Your task to perform on an android device: open a bookmark in the chrome app Image 0: 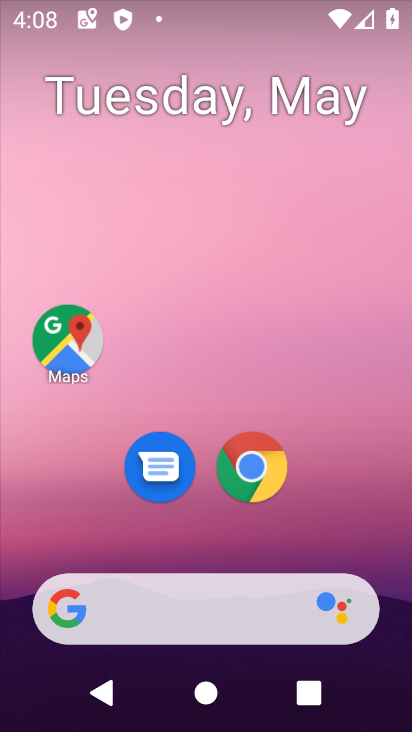
Step 0: click (260, 470)
Your task to perform on an android device: open a bookmark in the chrome app Image 1: 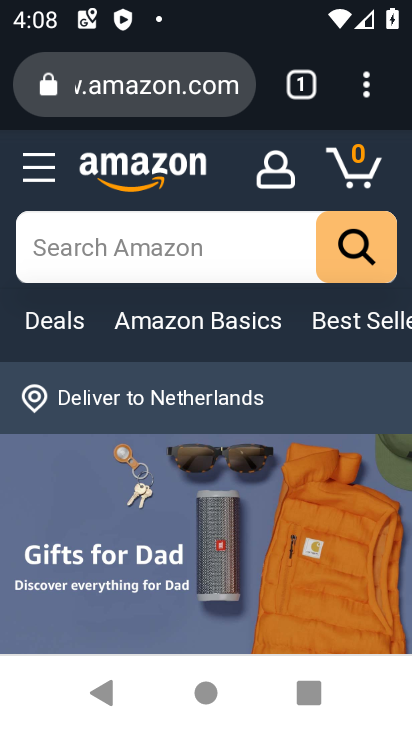
Step 1: click (358, 81)
Your task to perform on an android device: open a bookmark in the chrome app Image 2: 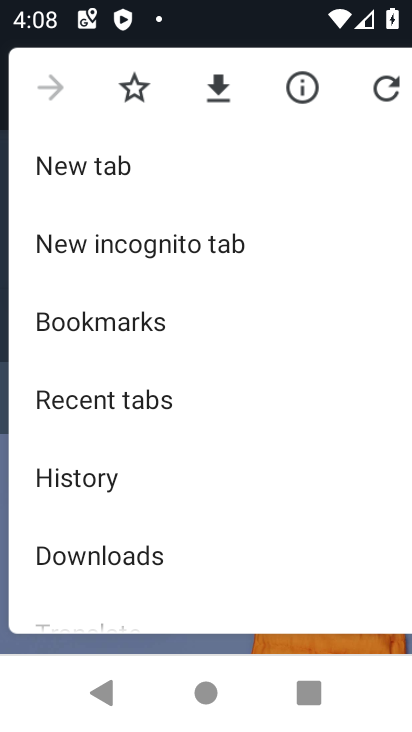
Step 2: click (152, 322)
Your task to perform on an android device: open a bookmark in the chrome app Image 3: 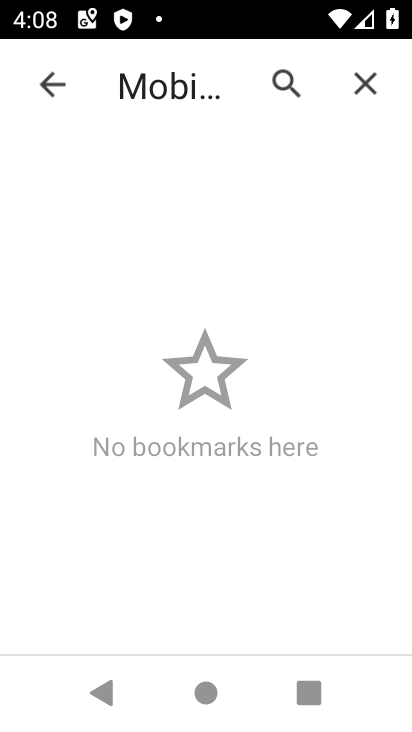
Step 3: task complete